Your task to perform on an android device: Go to Reddit.com Image 0: 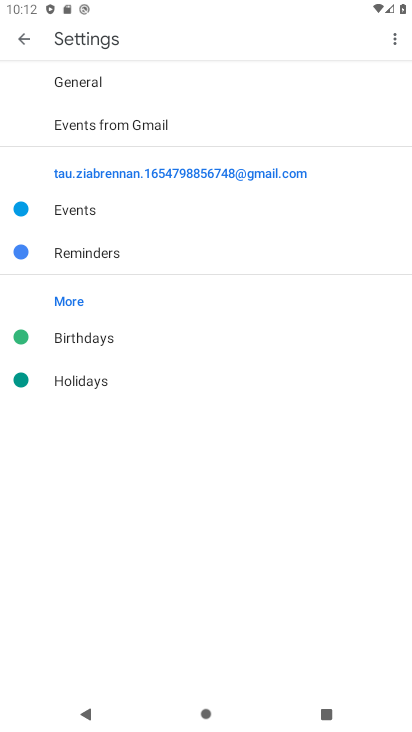
Step 0: press home button
Your task to perform on an android device: Go to Reddit.com Image 1: 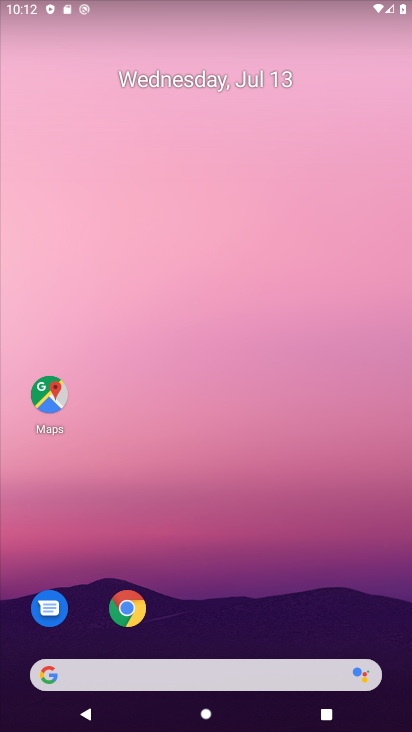
Step 1: click (53, 670)
Your task to perform on an android device: Go to Reddit.com Image 2: 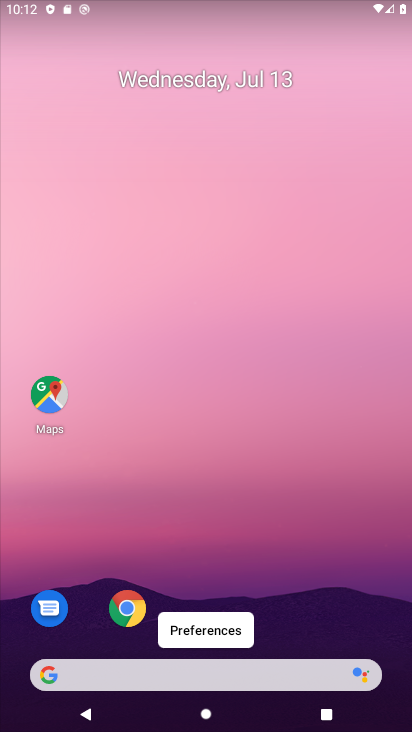
Step 2: click (50, 674)
Your task to perform on an android device: Go to Reddit.com Image 3: 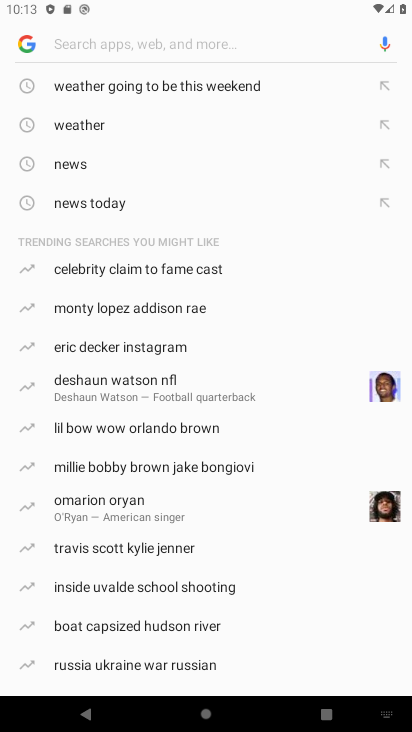
Step 3: type "Reddit.com"
Your task to perform on an android device: Go to Reddit.com Image 4: 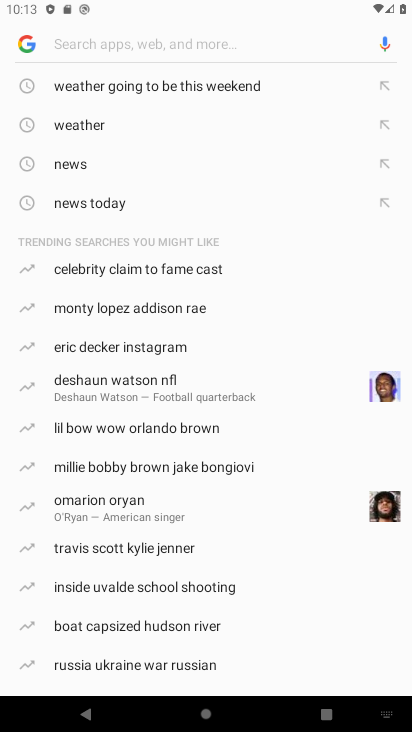
Step 4: click (87, 37)
Your task to perform on an android device: Go to Reddit.com Image 5: 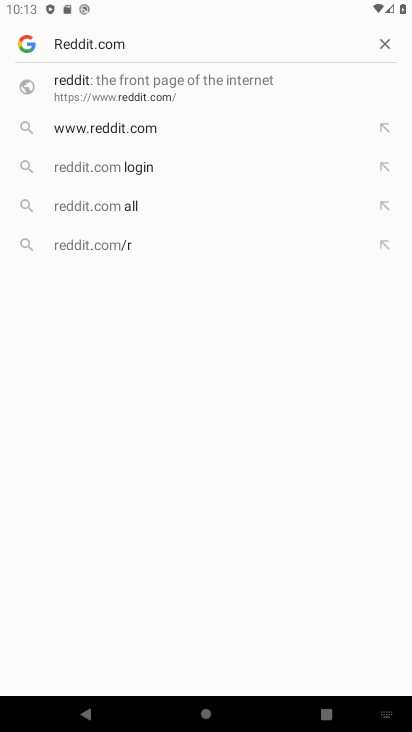
Step 5: click (151, 132)
Your task to perform on an android device: Go to Reddit.com Image 6: 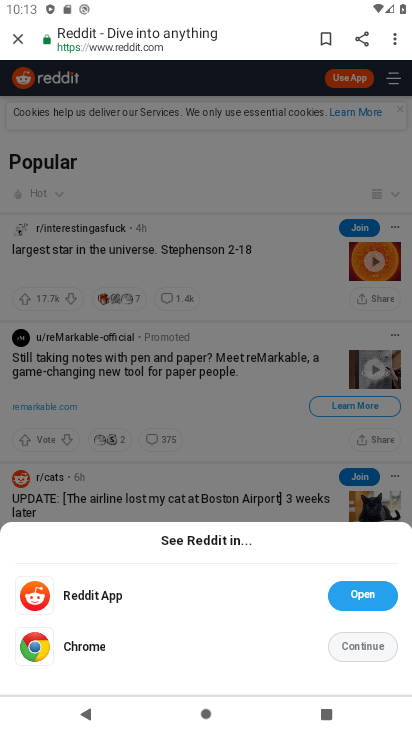
Step 6: task complete